Your task to perform on an android device: turn off notifications settings in the gmail app Image 0: 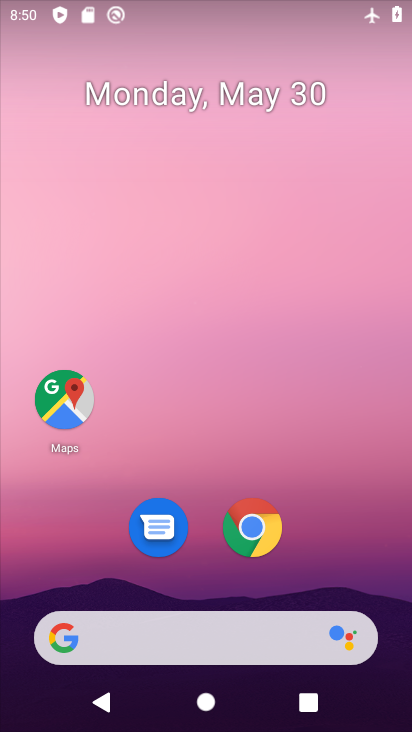
Step 0: drag from (206, 584) to (287, 28)
Your task to perform on an android device: turn off notifications settings in the gmail app Image 1: 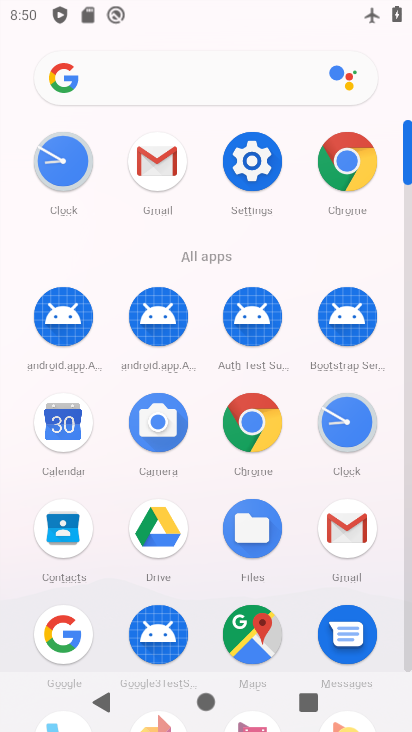
Step 1: click (342, 526)
Your task to perform on an android device: turn off notifications settings in the gmail app Image 2: 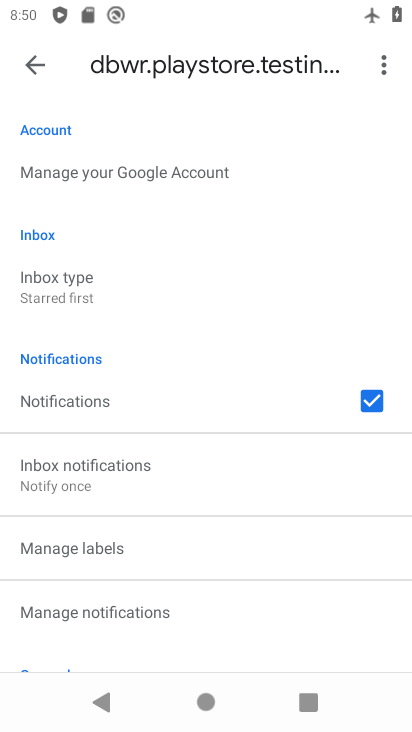
Step 2: click (113, 609)
Your task to perform on an android device: turn off notifications settings in the gmail app Image 3: 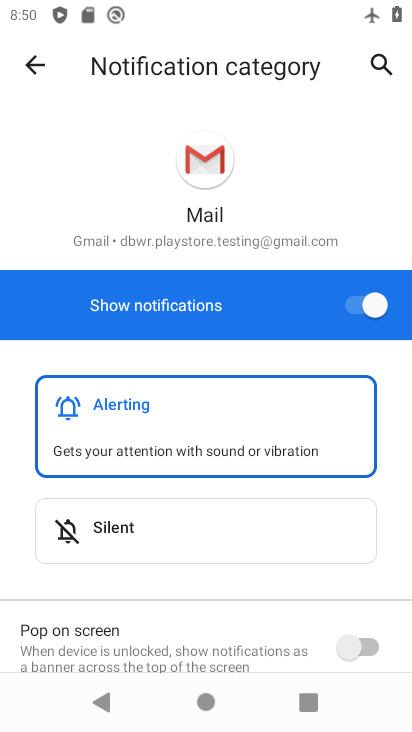
Step 3: click (362, 300)
Your task to perform on an android device: turn off notifications settings in the gmail app Image 4: 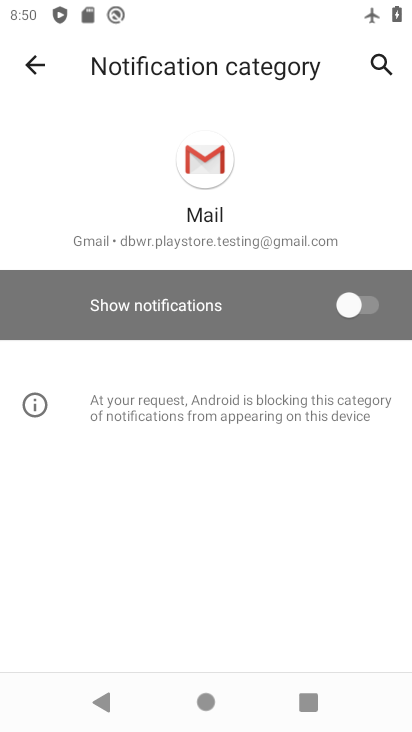
Step 4: task complete